Your task to perform on an android device: set default search engine in the chrome app Image 0: 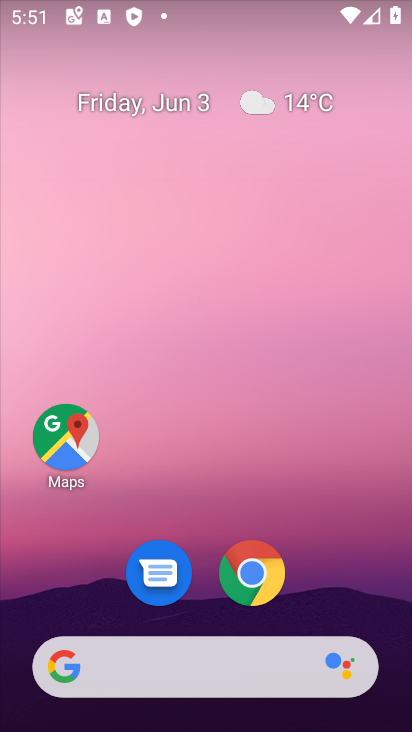
Step 0: drag from (183, 662) to (280, 13)
Your task to perform on an android device: set default search engine in the chrome app Image 1: 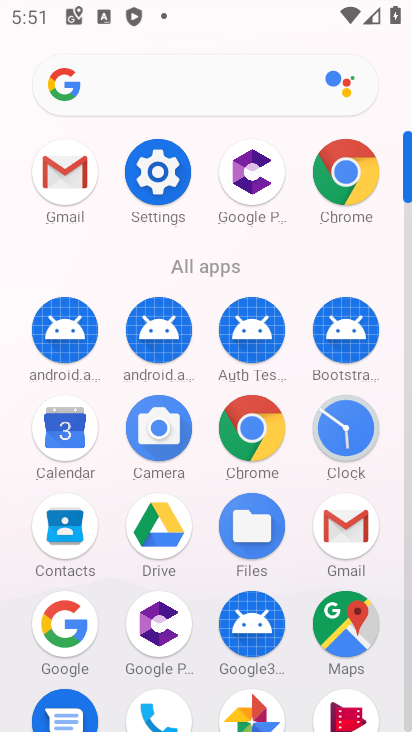
Step 1: click (229, 428)
Your task to perform on an android device: set default search engine in the chrome app Image 2: 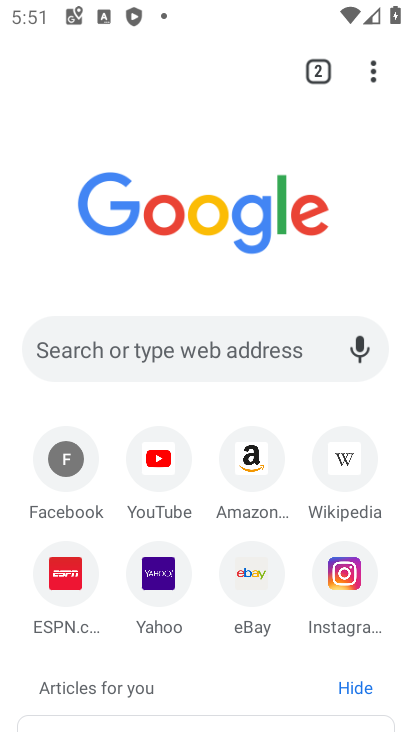
Step 2: drag from (382, 75) to (139, 611)
Your task to perform on an android device: set default search engine in the chrome app Image 3: 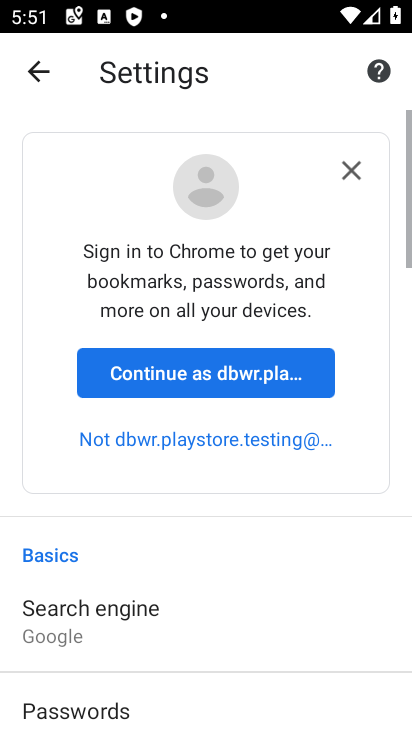
Step 3: drag from (181, 658) to (225, 67)
Your task to perform on an android device: set default search engine in the chrome app Image 4: 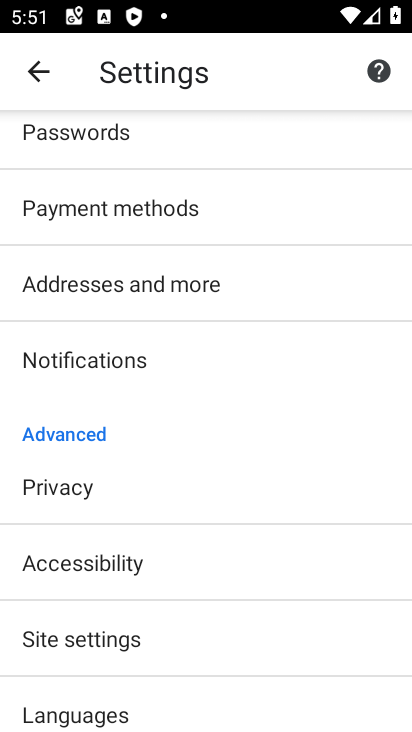
Step 4: drag from (150, 182) to (133, 718)
Your task to perform on an android device: set default search engine in the chrome app Image 5: 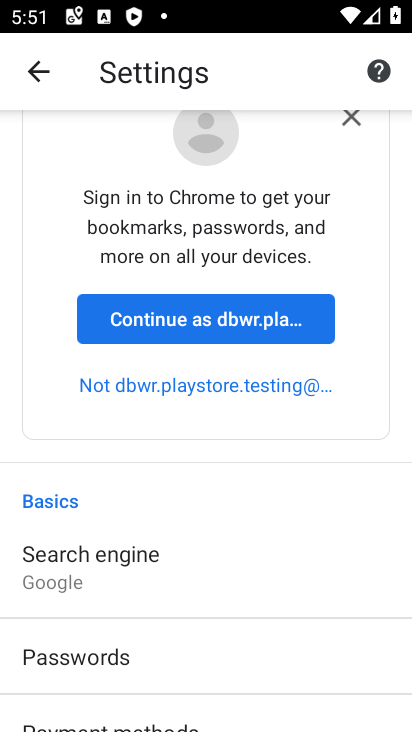
Step 5: click (90, 577)
Your task to perform on an android device: set default search engine in the chrome app Image 6: 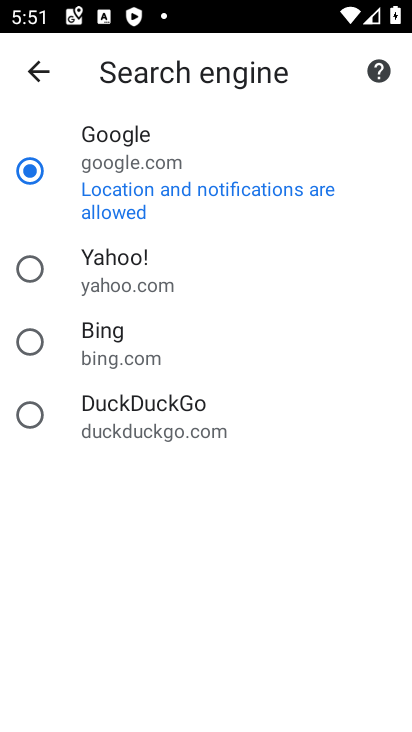
Step 6: task complete